Your task to perform on an android device: toggle sleep mode Image 0: 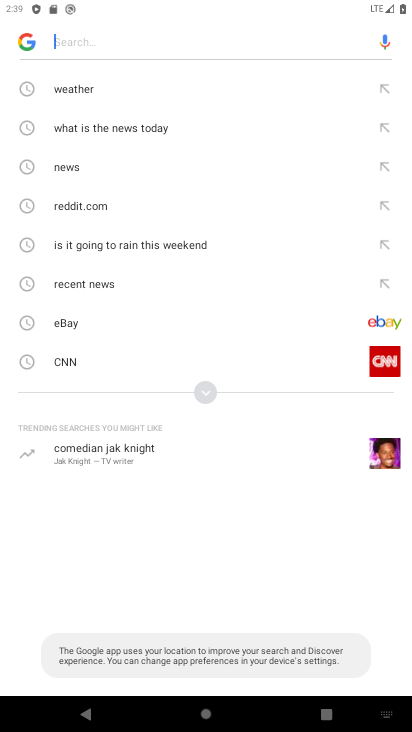
Step 0: press back button
Your task to perform on an android device: toggle sleep mode Image 1: 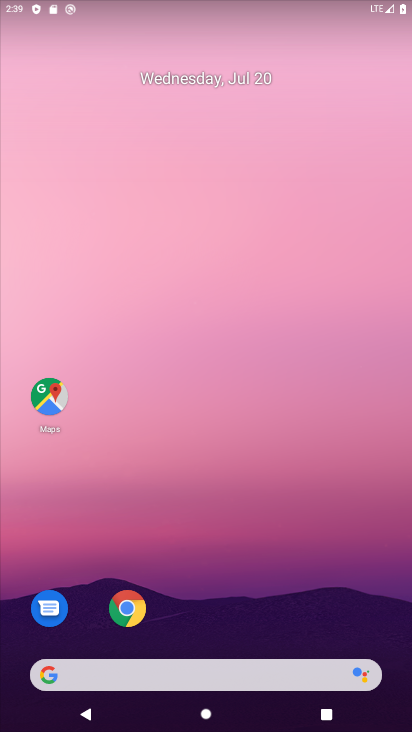
Step 1: drag from (189, 652) to (187, 104)
Your task to perform on an android device: toggle sleep mode Image 2: 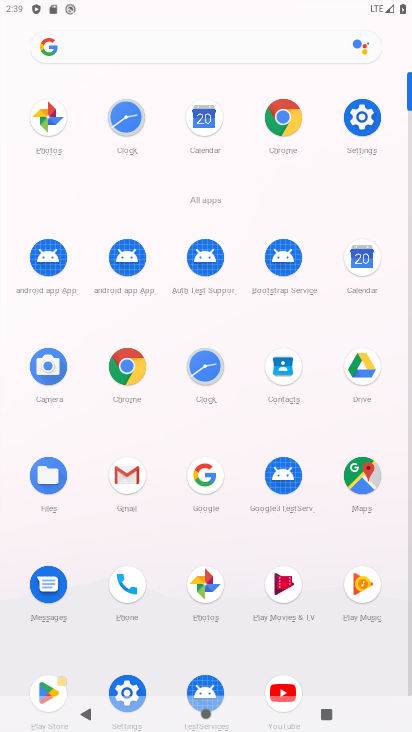
Step 2: click (351, 120)
Your task to perform on an android device: toggle sleep mode Image 3: 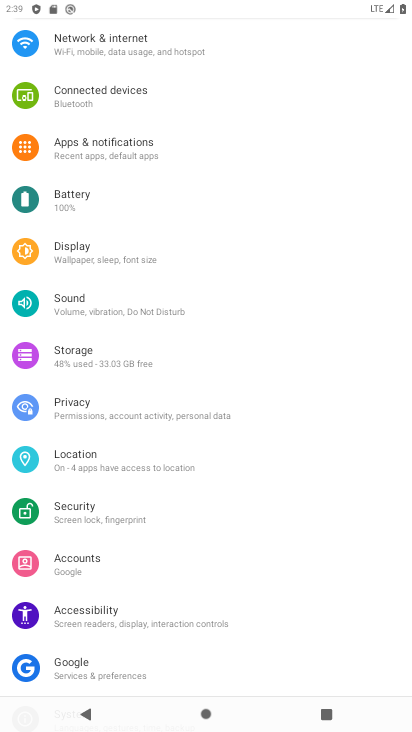
Step 3: click (69, 242)
Your task to perform on an android device: toggle sleep mode Image 4: 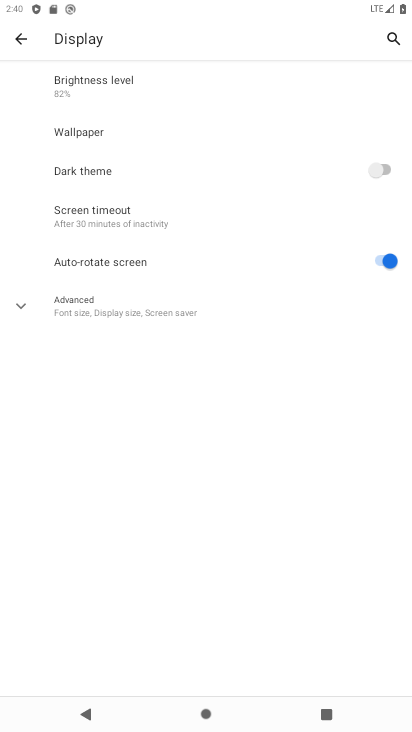
Step 4: task complete